Your task to perform on an android device: turn notification dots on Image 0: 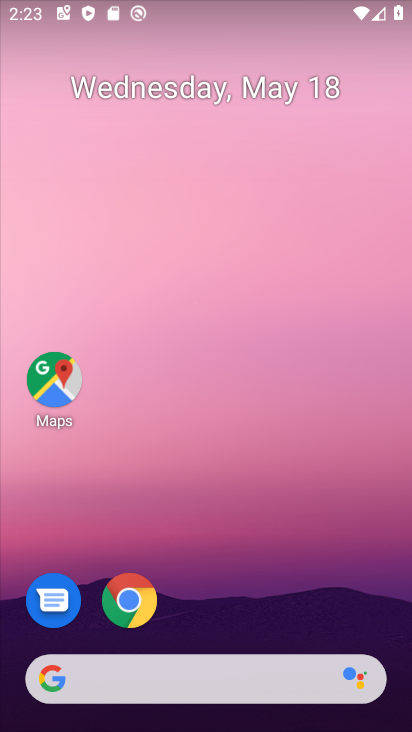
Step 0: drag from (228, 633) to (313, 136)
Your task to perform on an android device: turn notification dots on Image 1: 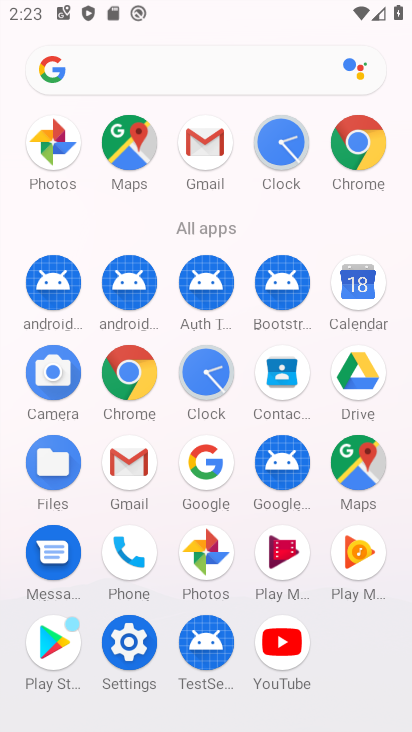
Step 1: click (122, 661)
Your task to perform on an android device: turn notification dots on Image 2: 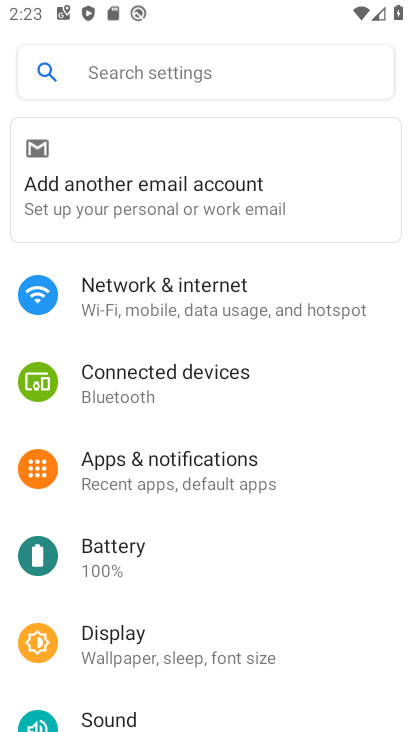
Step 2: drag from (195, 561) to (221, 436)
Your task to perform on an android device: turn notification dots on Image 3: 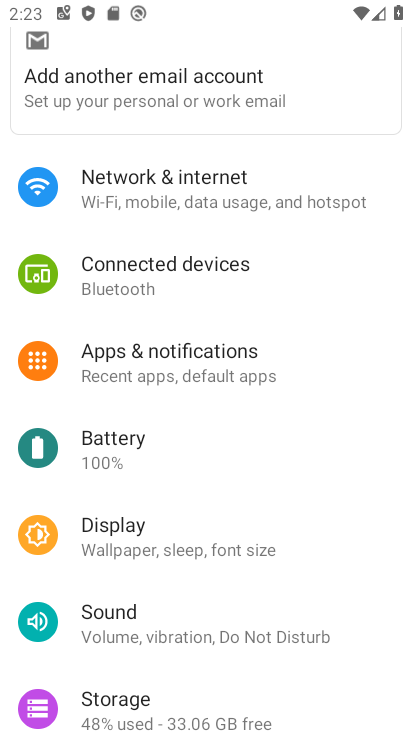
Step 3: click (163, 372)
Your task to perform on an android device: turn notification dots on Image 4: 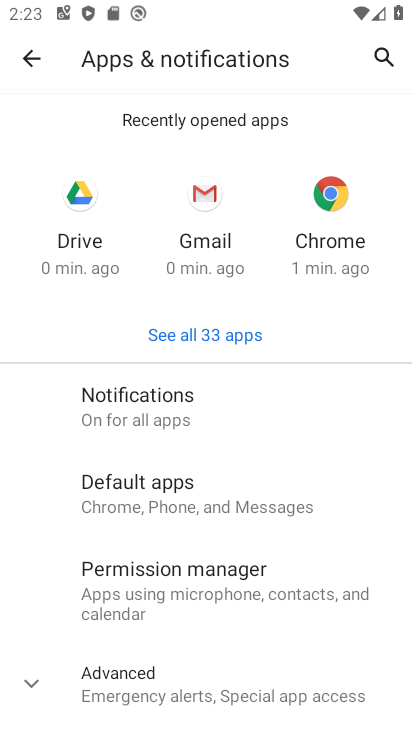
Step 4: click (177, 409)
Your task to perform on an android device: turn notification dots on Image 5: 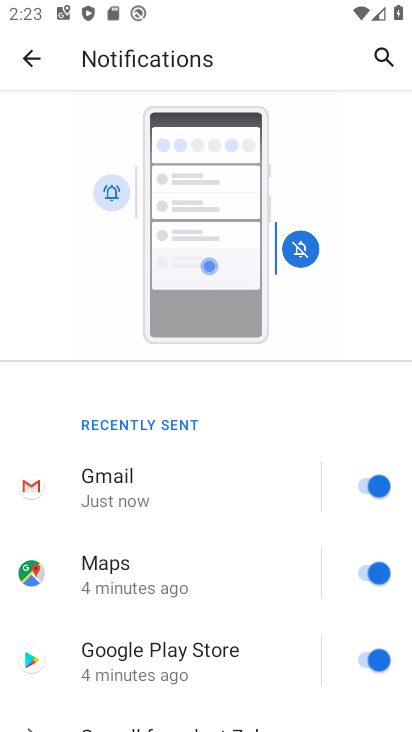
Step 5: drag from (172, 567) to (206, 325)
Your task to perform on an android device: turn notification dots on Image 6: 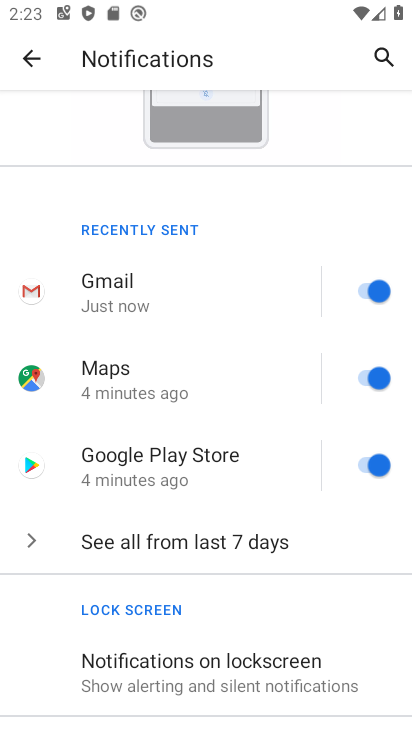
Step 6: drag from (204, 622) to (260, 244)
Your task to perform on an android device: turn notification dots on Image 7: 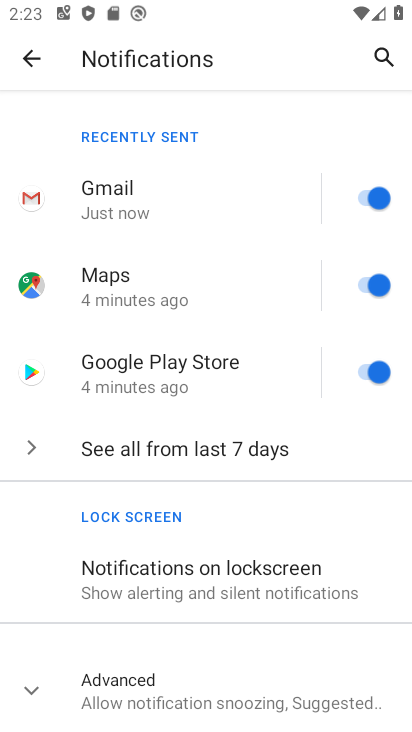
Step 7: click (124, 704)
Your task to perform on an android device: turn notification dots on Image 8: 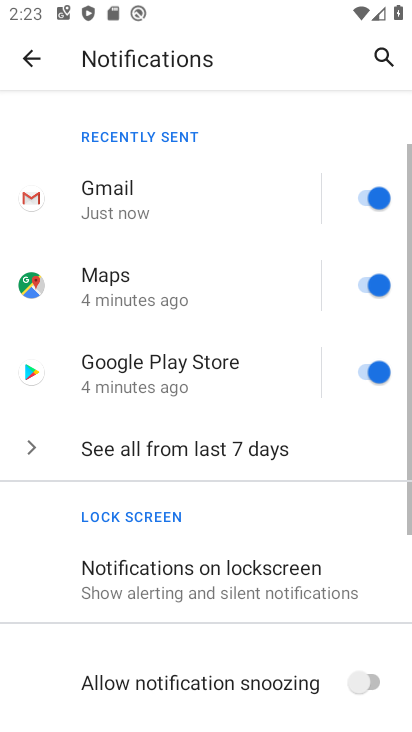
Step 8: task complete